Your task to perform on an android device: Open the stopwatch Image 0: 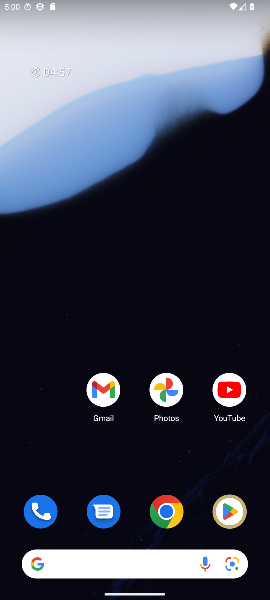
Step 0: drag from (136, 458) to (154, 4)
Your task to perform on an android device: Open the stopwatch Image 1: 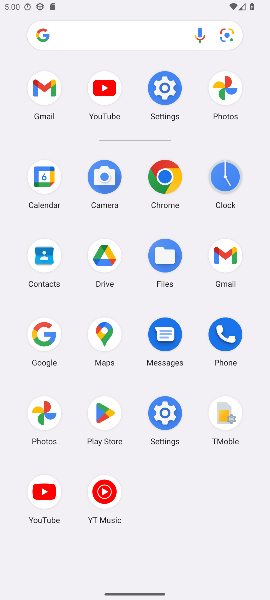
Step 1: click (226, 181)
Your task to perform on an android device: Open the stopwatch Image 2: 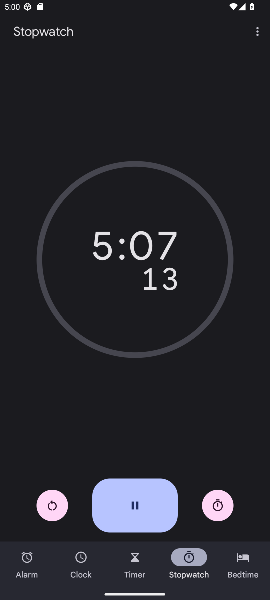
Step 2: click (52, 500)
Your task to perform on an android device: Open the stopwatch Image 3: 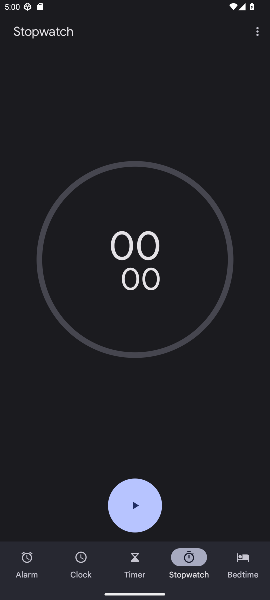
Step 3: click (125, 510)
Your task to perform on an android device: Open the stopwatch Image 4: 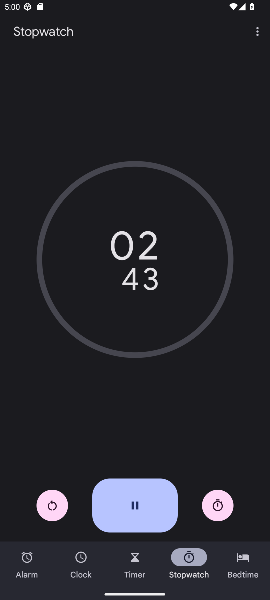
Step 4: task complete